Your task to perform on an android device: Open the calendar and show me this week's events Image 0: 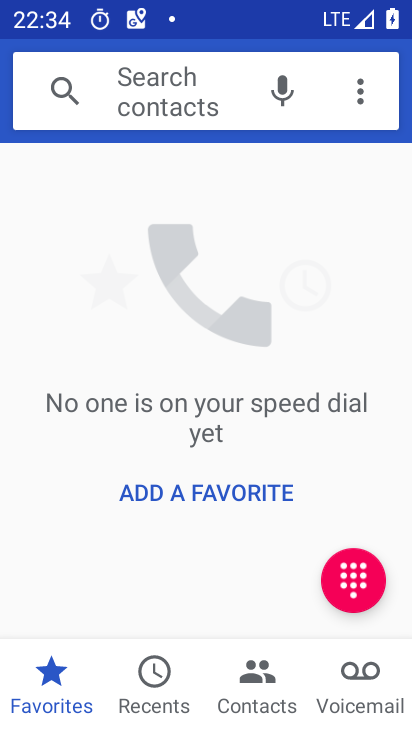
Step 0: press home button
Your task to perform on an android device: Open the calendar and show me this week's events Image 1: 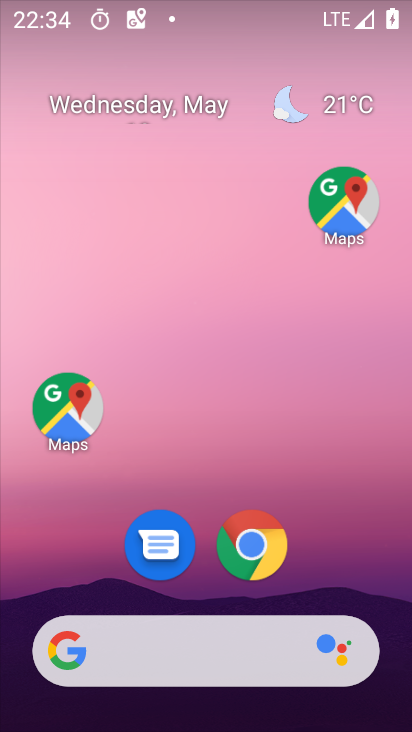
Step 1: drag from (322, 590) to (294, 68)
Your task to perform on an android device: Open the calendar and show me this week's events Image 2: 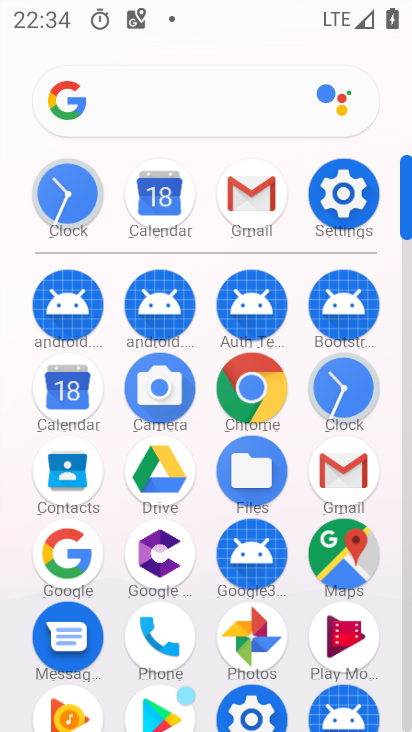
Step 2: click (64, 399)
Your task to perform on an android device: Open the calendar and show me this week's events Image 3: 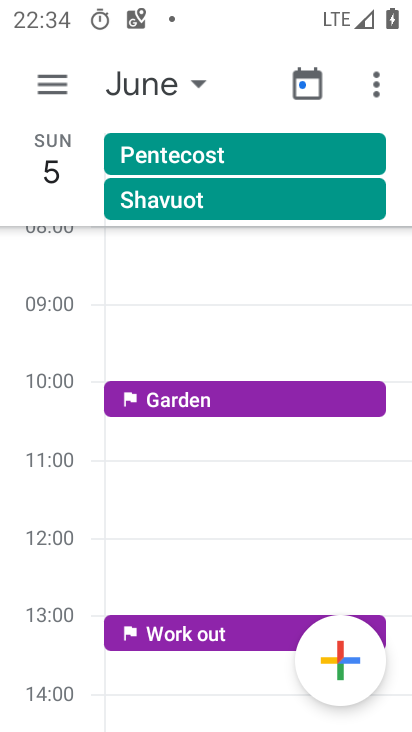
Step 3: click (57, 72)
Your task to perform on an android device: Open the calendar and show me this week's events Image 4: 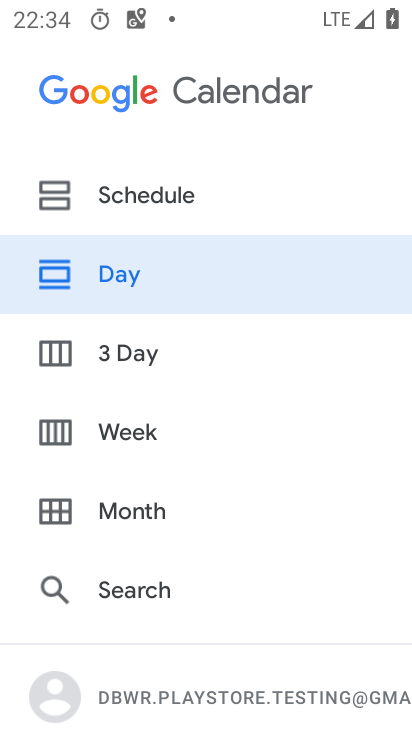
Step 4: click (117, 197)
Your task to perform on an android device: Open the calendar and show me this week's events Image 5: 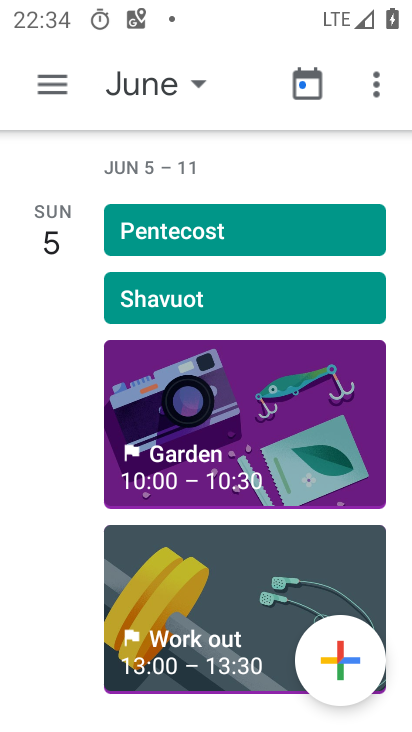
Step 5: click (159, 81)
Your task to perform on an android device: Open the calendar and show me this week's events Image 6: 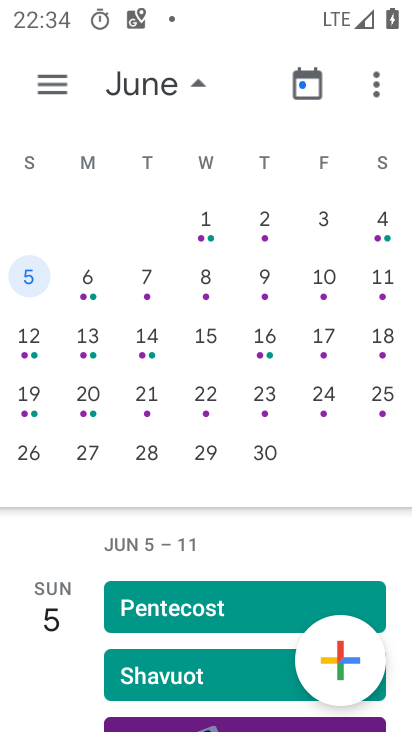
Step 6: drag from (71, 299) to (365, 308)
Your task to perform on an android device: Open the calendar and show me this week's events Image 7: 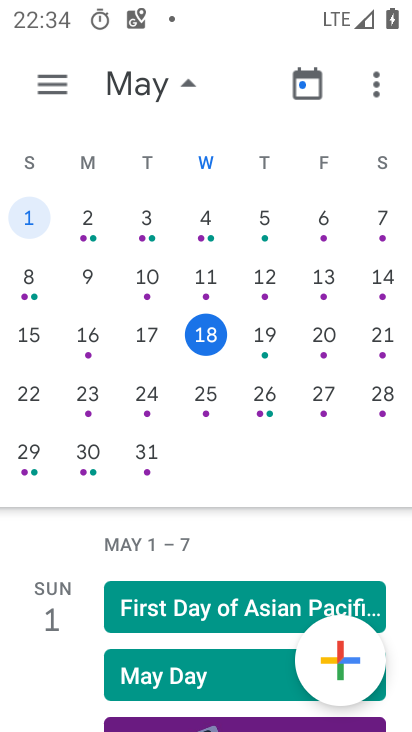
Step 7: click (202, 331)
Your task to perform on an android device: Open the calendar and show me this week's events Image 8: 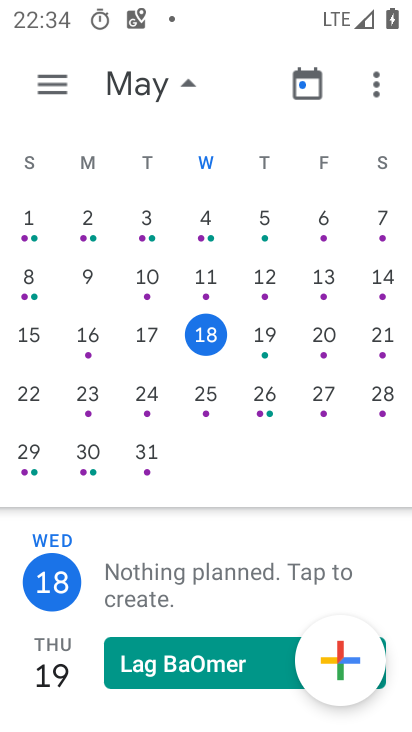
Step 8: task complete